Your task to perform on an android device: Toggle the flashlight Image 0: 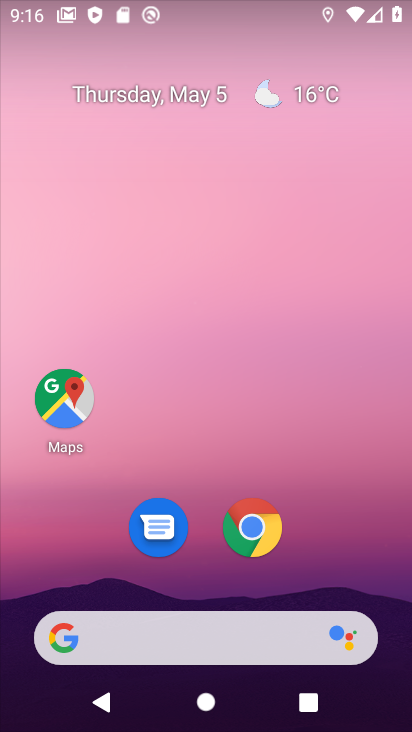
Step 0: drag from (380, 1) to (263, 566)
Your task to perform on an android device: Toggle the flashlight Image 1: 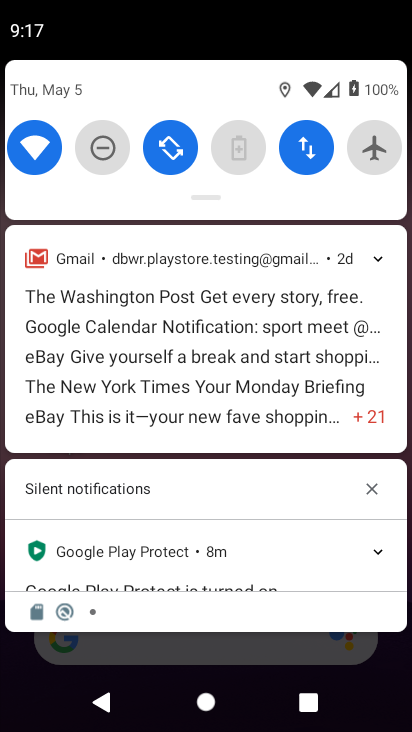
Step 1: task complete